Your task to perform on an android device: toggle show notifications on the lock screen Image 0: 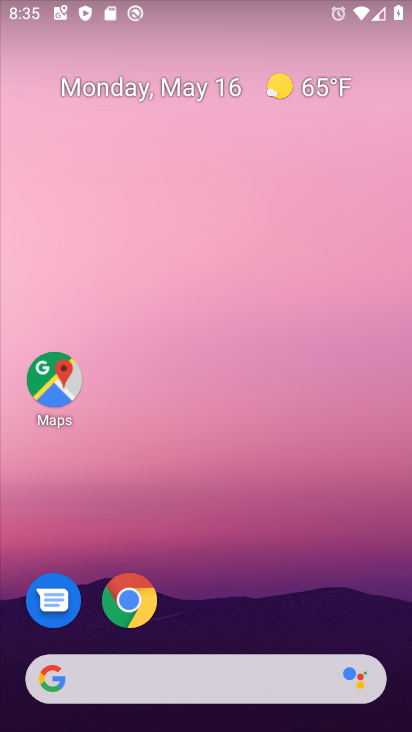
Step 0: drag from (221, 619) to (321, 56)
Your task to perform on an android device: toggle show notifications on the lock screen Image 1: 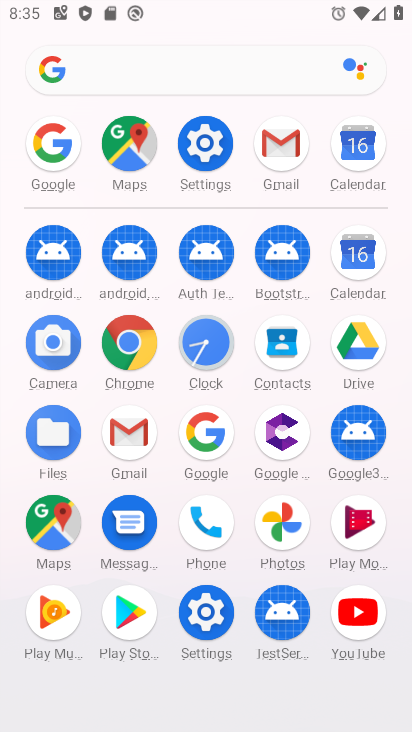
Step 1: click (193, 143)
Your task to perform on an android device: toggle show notifications on the lock screen Image 2: 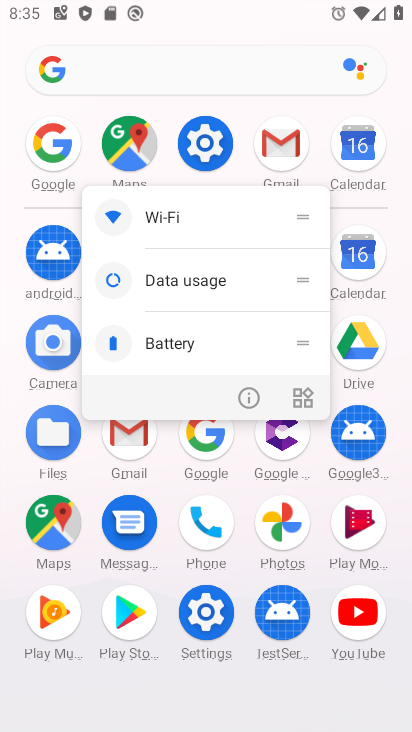
Step 2: click (244, 400)
Your task to perform on an android device: toggle show notifications on the lock screen Image 3: 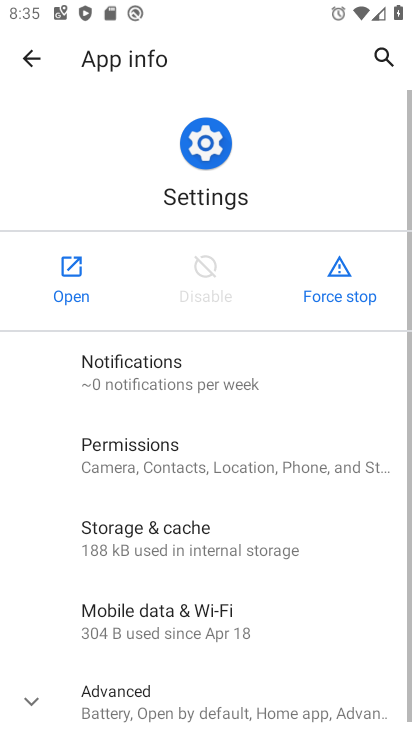
Step 3: click (72, 267)
Your task to perform on an android device: toggle show notifications on the lock screen Image 4: 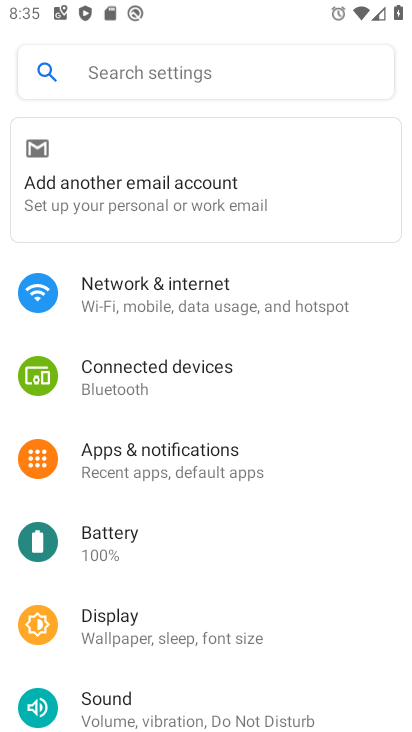
Step 4: click (197, 465)
Your task to perform on an android device: toggle show notifications on the lock screen Image 5: 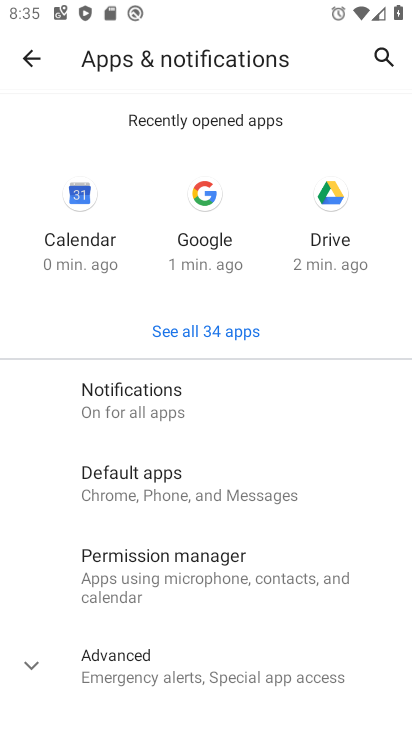
Step 5: drag from (215, 577) to (267, 200)
Your task to perform on an android device: toggle show notifications on the lock screen Image 6: 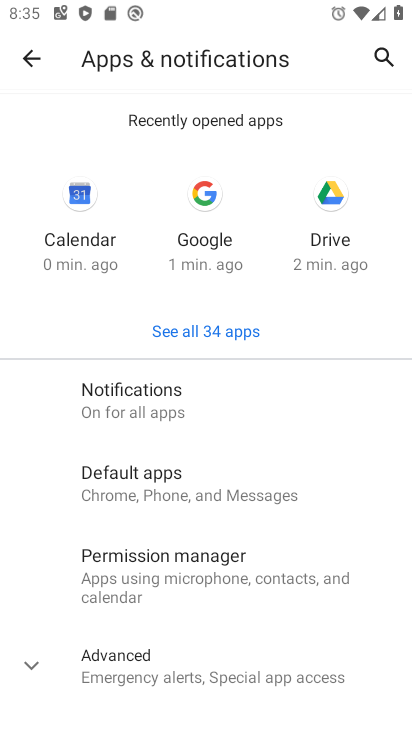
Step 6: click (193, 411)
Your task to perform on an android device: toggle show notifications on the lock screen Image 7: 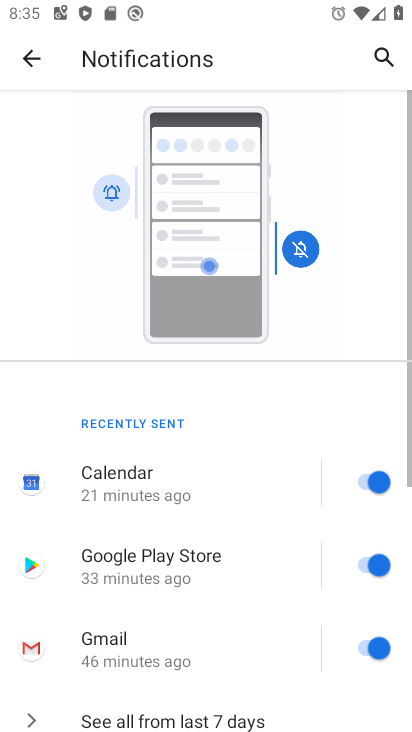
Step 7: drag from (216, 646) to (271, 314)
Your task to perform on an android device: toggle show notifications on the lock screen Image 8: 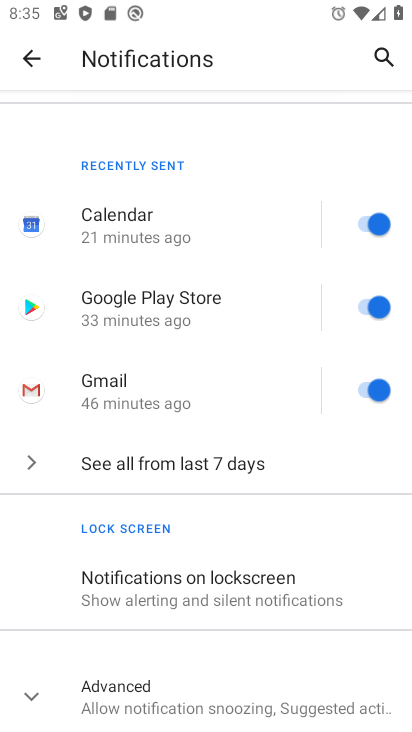
Step 8: click (177, 592)
Your task to perform on an android device: toggle show notifications on the lock screen Image 9: 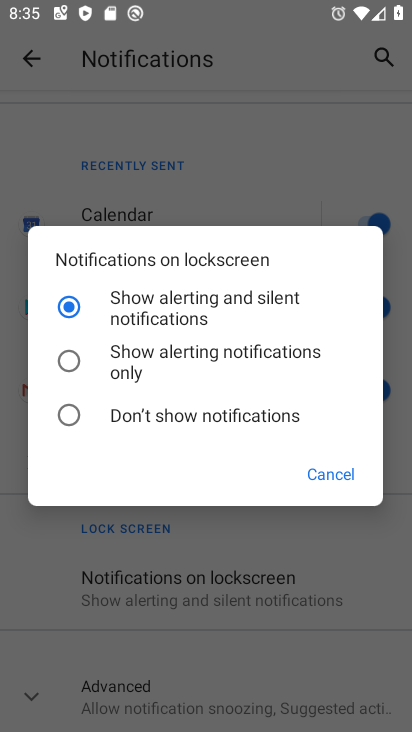
Step 9: click (104, 357)
Your task to perform on an android device: toggle show notifications on the lock screen Image 10: 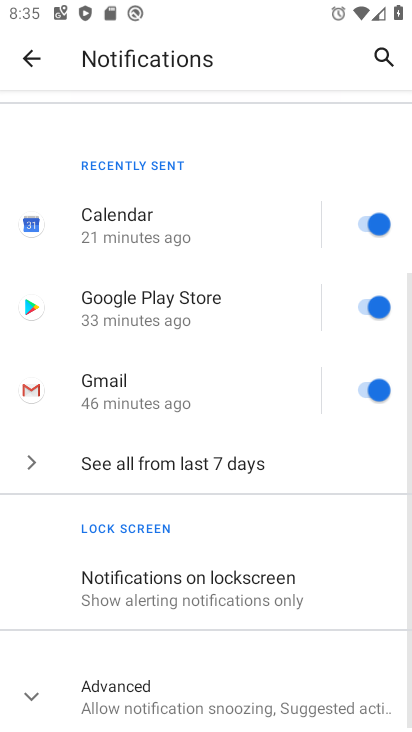
Step 10: task complete